Your task to perform on an android device: What is the news today? Image 0: 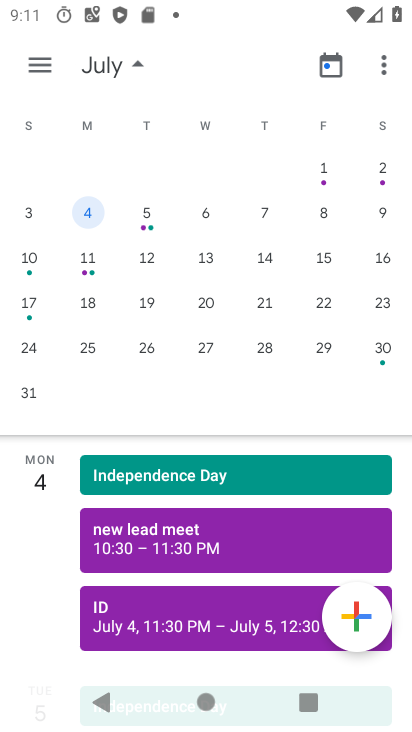
Step 0: press home button
Your task to perform on an android device: What is the news today? Image 1: 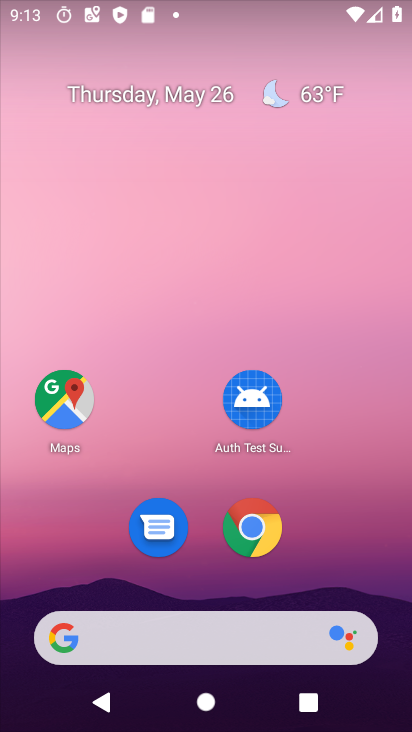
Step 1: drag from (332, 562) to (301, 43)
Your task to perform on an android device: What is the news today? Image 2: 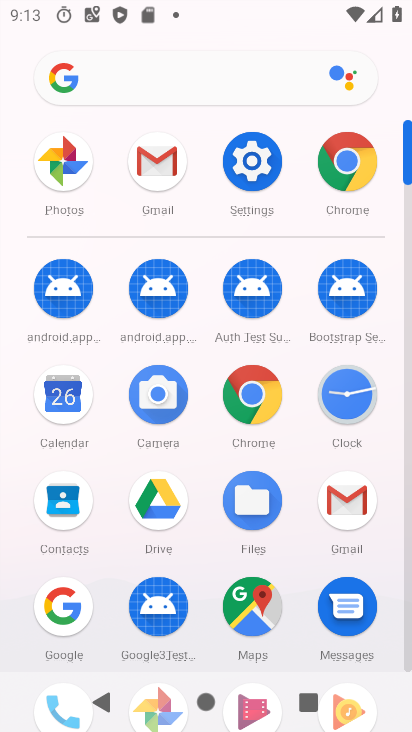
Step 2: click (362, 161)
Your task to perform on an android device: What is the news today? Image 3: 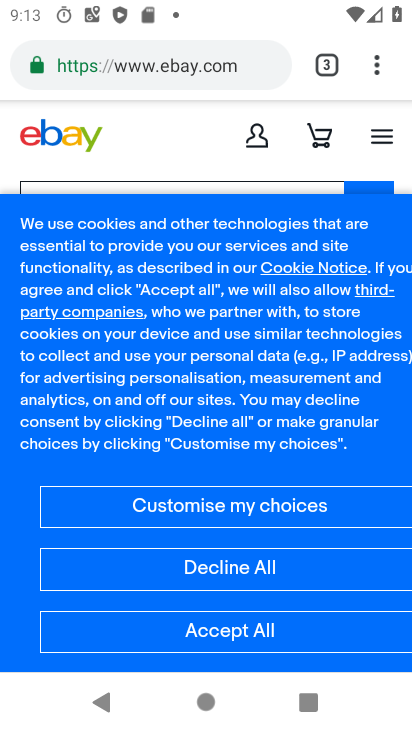
Step 3: task complete